Your task to perform on an android device: star an email in the gmail app Image 0: 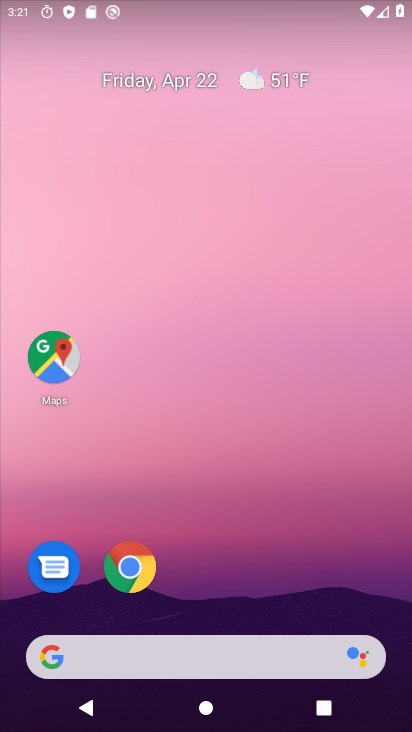
Step 0: drag from (237, 333) to (214, 75)
Your task to perform on an android device: star an email in the gmail app Image 1: 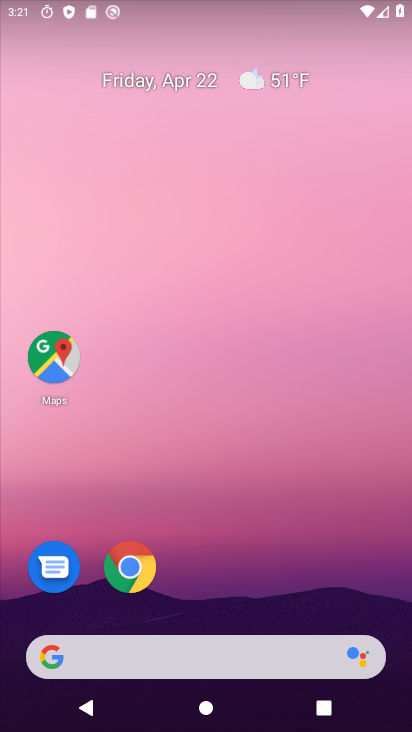
Step 1: drag from (246, 546) to (184, 44)
Your task to perform on an android device: star an email in the gmail app Image 2: 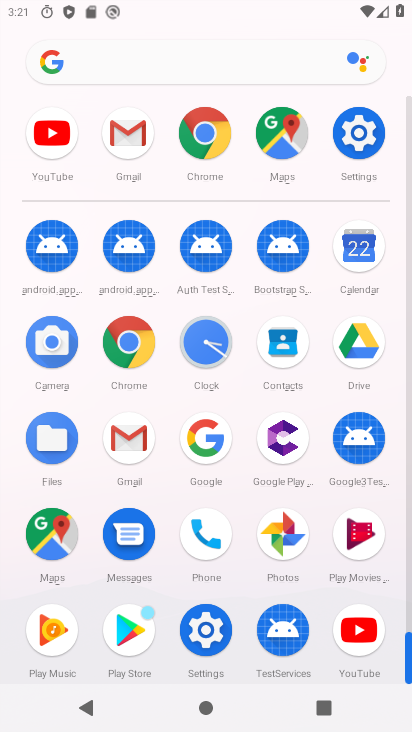
Step 2: click (126, 444)
Your task to perform on an android device: star an email in the gmail app Image 3: 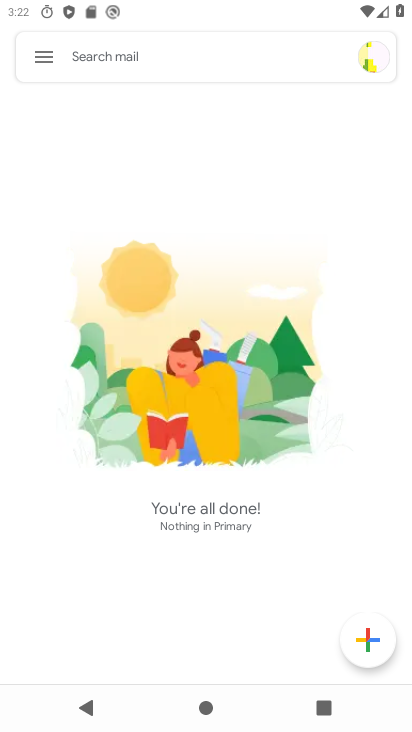
Step 3: click (41, 55)
Your task to perform on an android device: star an email in the gmail app Image 4: 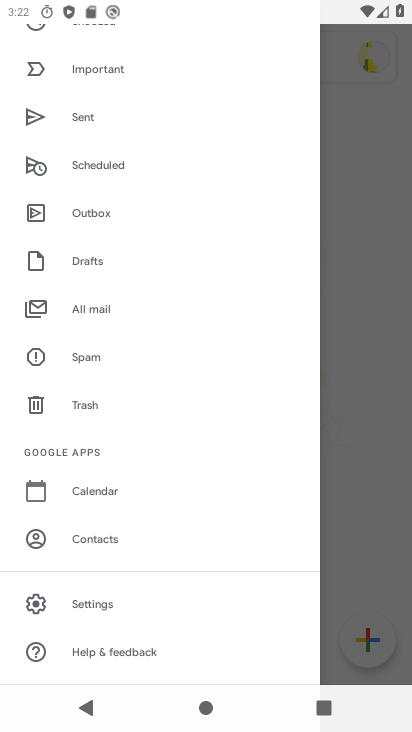
Step 4: click (94, 305)
Your task to perform on an android device: star an email in the gmail app Image 5: 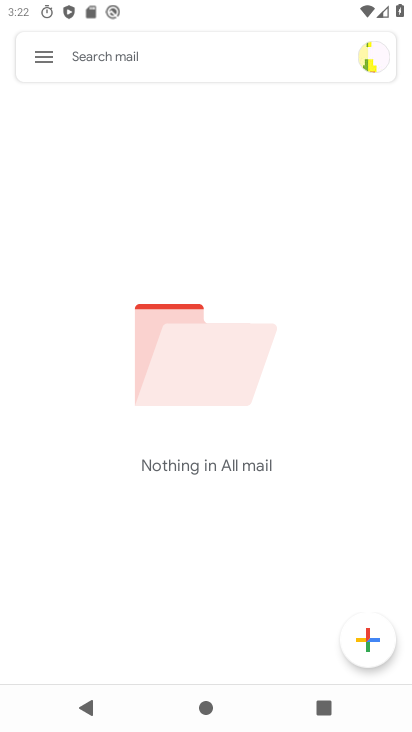
Step 5: task complete